Your task to perform on an android device: toggle priority inbox in the gmail app Image 0: 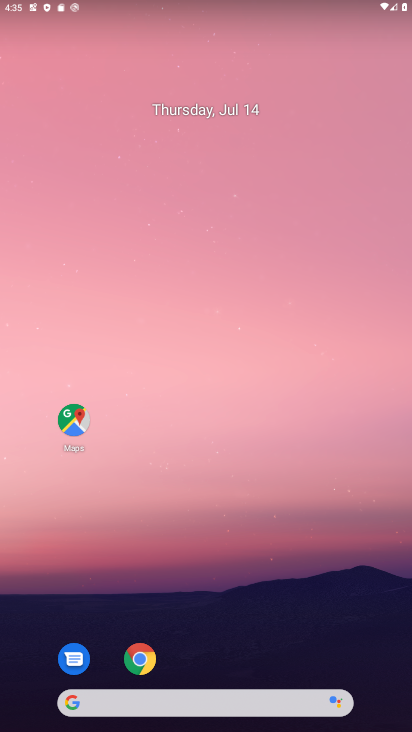
Step 0: press home button
Your task to perform on an android device: toggle priority inbox in the gmail app Image 1: 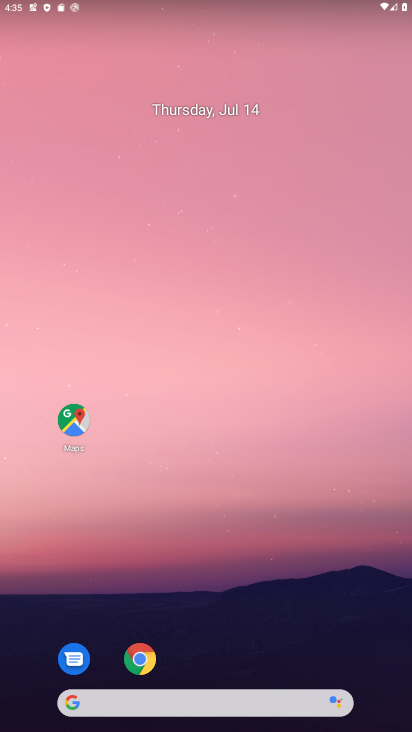
Step 1: drag from (252, 664) to (331, 18)
Your task to perform on an android device: toggle priority inbox in the gmail app Image 2: 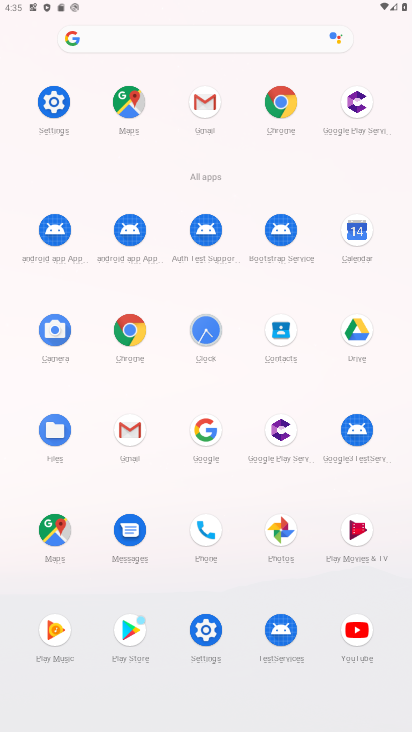
Step 2: click (127, 425)
Your task to perform on an android device: toggle priority inbox in the gmail app Image 3: 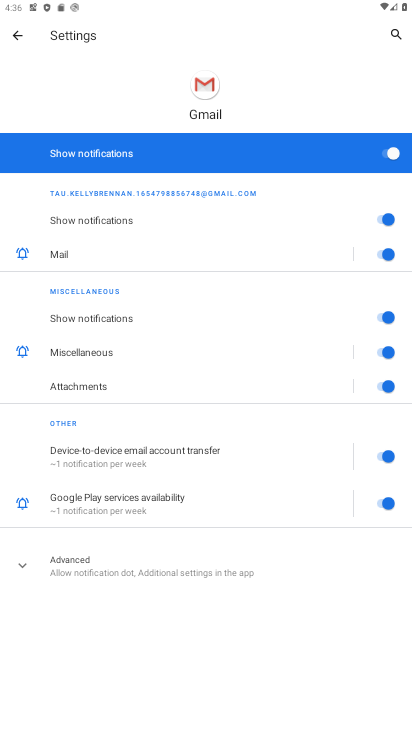
Step 3: click (21, 31)
Your task to perform on an android device: toggle priority inbox in the gmail app Image 4: 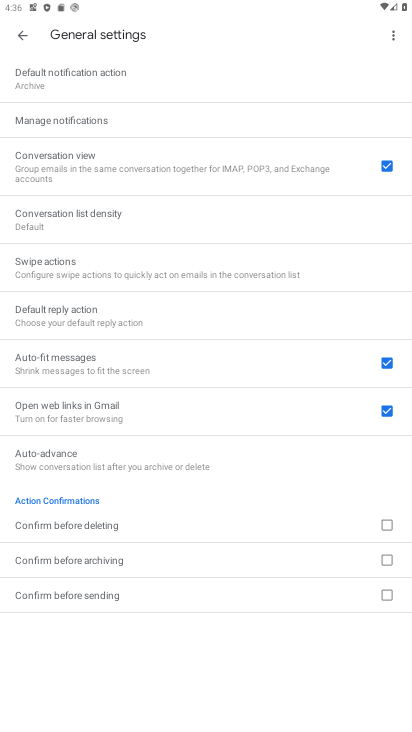
Step 4: click (23, 37)
Your task to perform on an android device: toggle priority inbox in the gmail app Image 5: 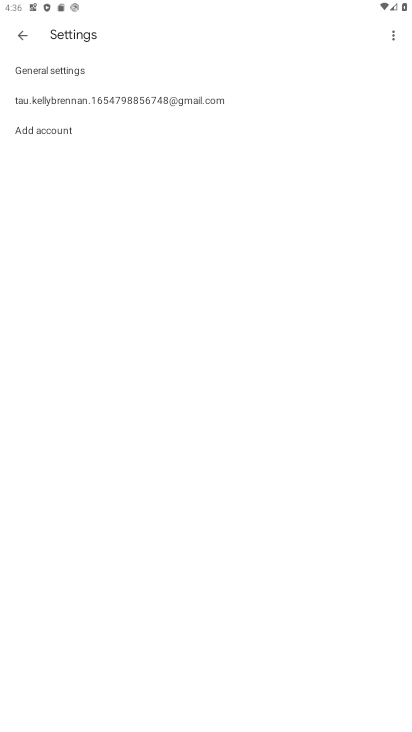
Step 5: click (77, 99)
Your task to perform on an android device: toggle priority inbox in the gmail app Image 6: 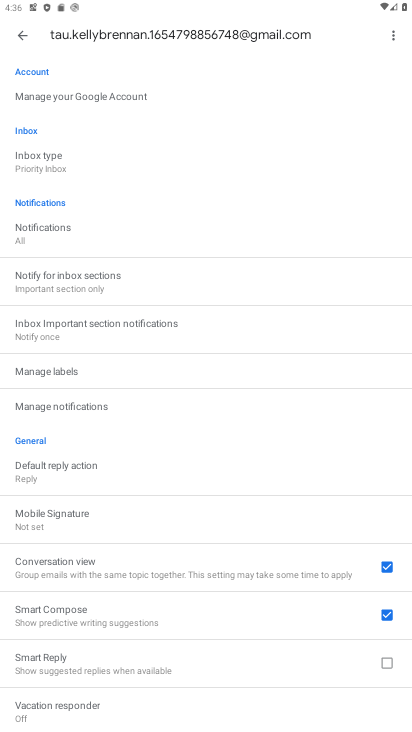
Step 6: click (68, 163)
Your task to perform on an android device: toggle priority inbox in the gmail app Image 7: 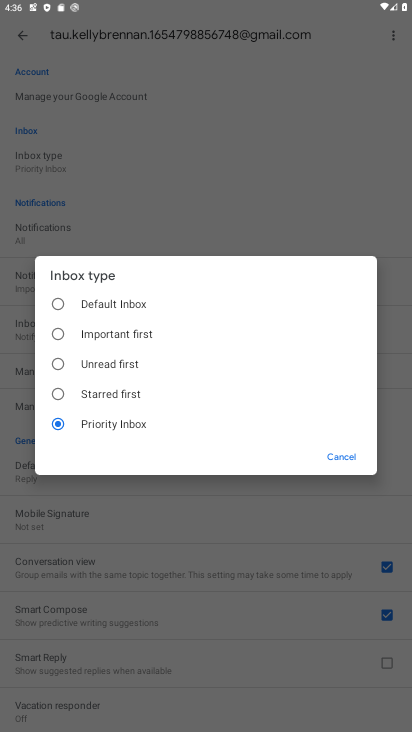
Step 7: click (53, 389)
Your task to perform on an android device: toggle priority inbox in the gmail app Image 8: 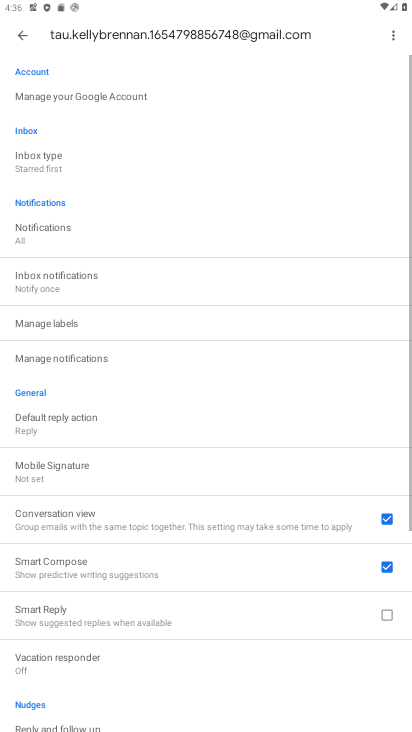
Step 8: task complete